Your task to perform on an android device: Open network settings Image 0: 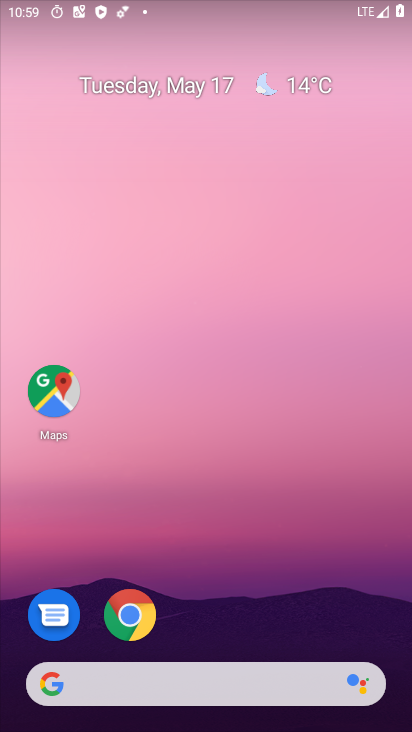
Step 0: press home button
Your task to perform on an android device: Open network settings Image 1: 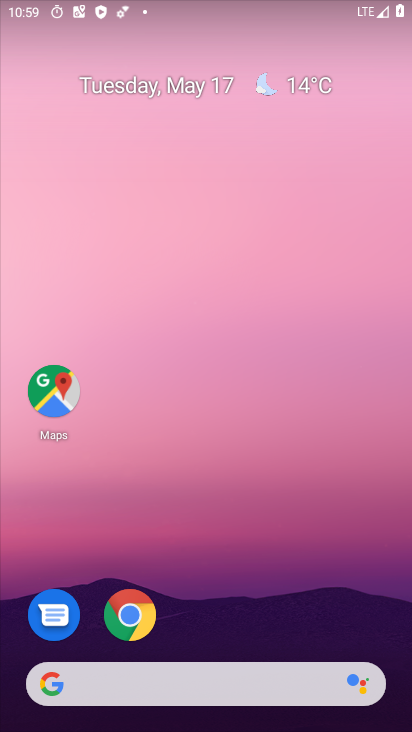
Step 1: drag from (174, 690) to (266, 205)
Your task to perform on an android device: Open network settings Image 2: 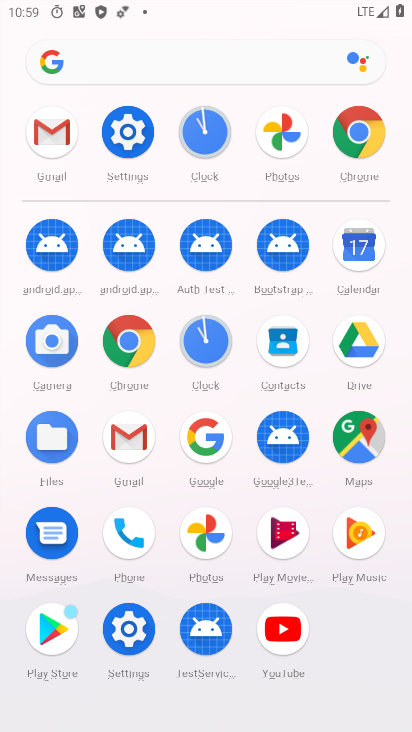
Step 2: click (131, 153)
Your task to perform on an android device: Open network settings Image 3: 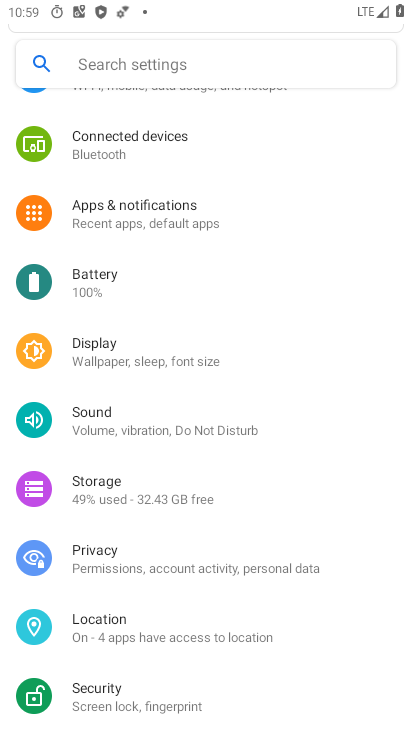
Step 3: drag from (294, 183) to (269, 639)
Your task to perform on an android device: Open network settings Image 4: 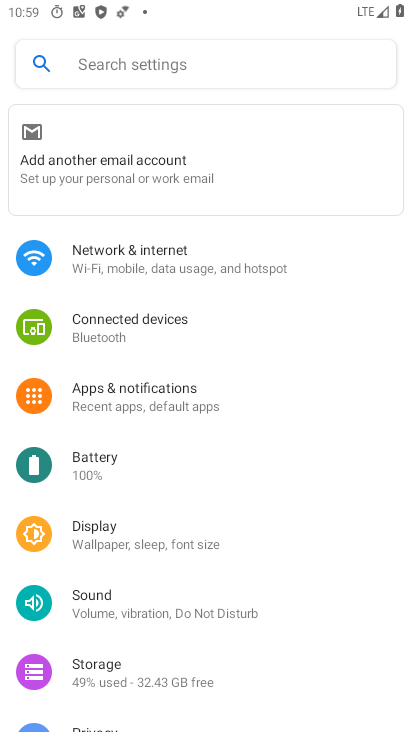
Step 4: click (148, 262)
Your task to perform on an android device: Open network settings Image 5: 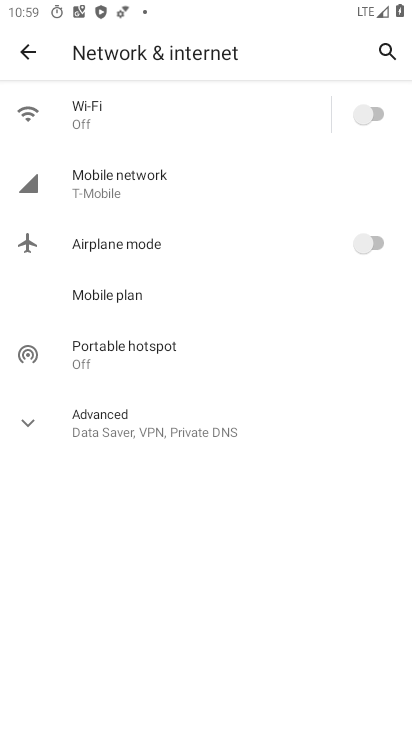
Step 5: task complete